Your task to perform on an android device: Open Youtube and go to "Your channel" Image 0: 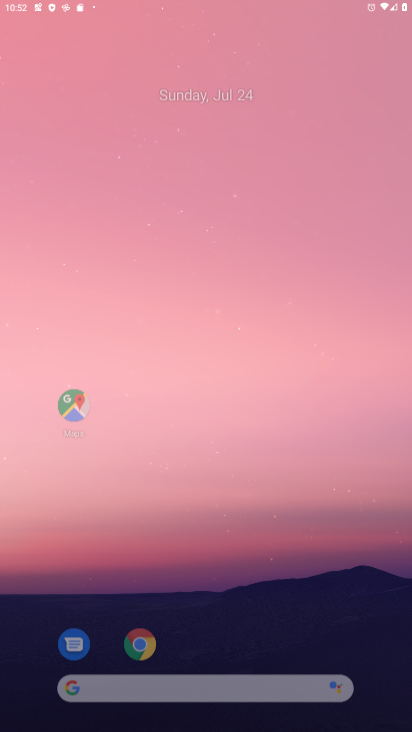
Step 0: click (333, 86)
Your task to perform on an android device: Open Youtube and go to "Your channel" Image 1: 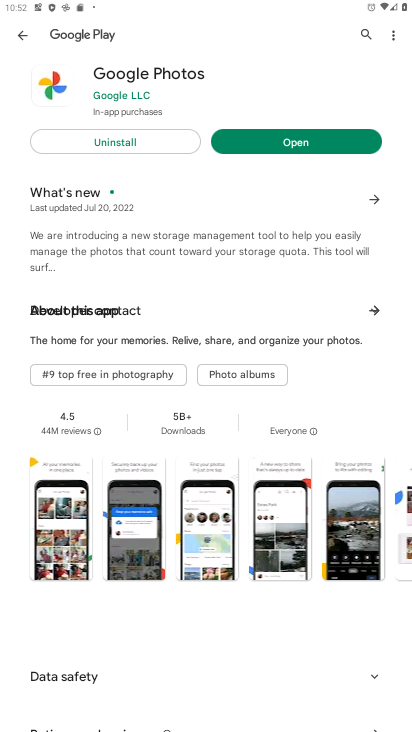
Step 1: press home button
Your task to perform on an android device: Open Youtube and go to "Your channel" Image 2: 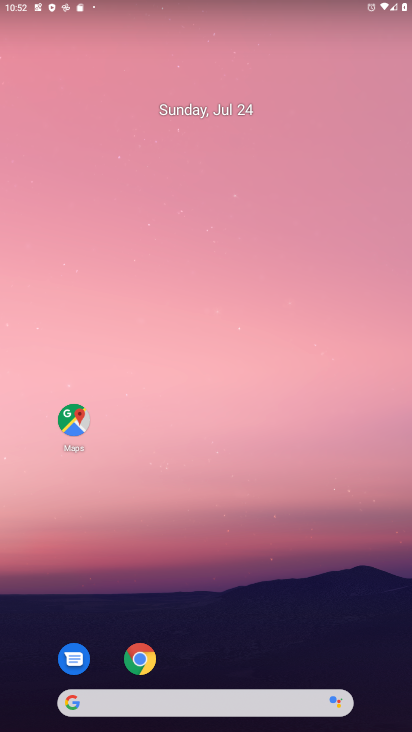
Step 2: drag from (388, 658) to (352, 86)
Your task to perform on an android device: Open Youtube and go to "Your channel" Image 3: 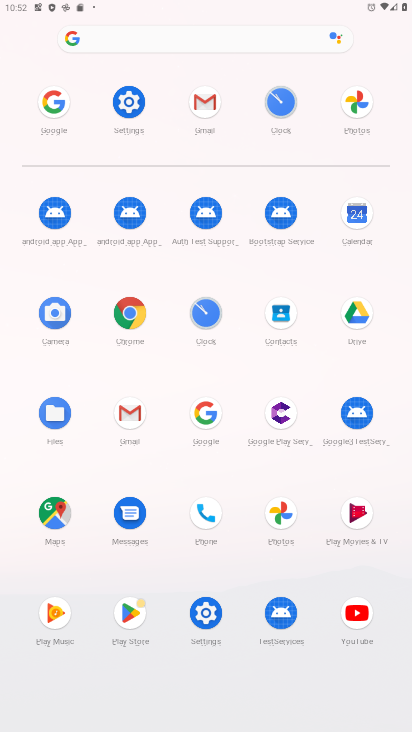
Step 3: click (361, 602)
Your task to perform on an android device: Open Youtube and go to "Your channel" Image 4: 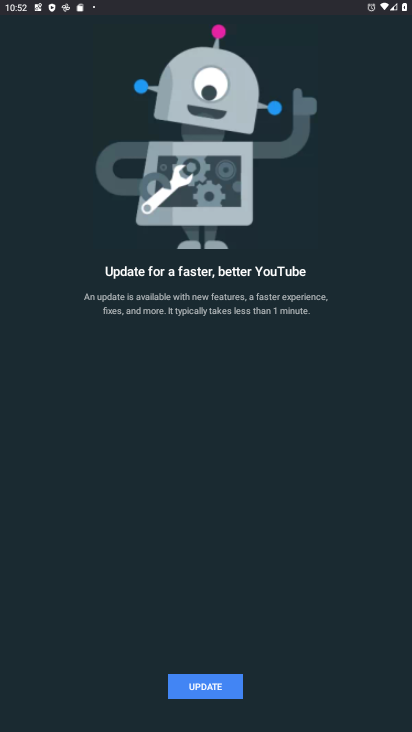
Step 4: click (222, 688)
Your task to perform on an android device: Open Youtube and go to "Your channel" Image 5: 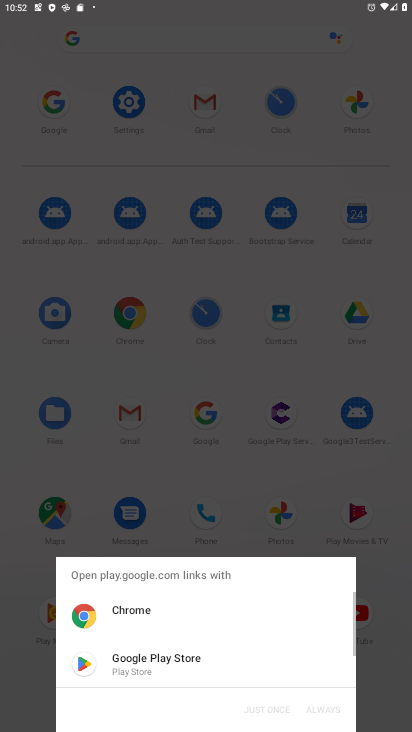
Step 5: click (142, 654)
Your task to perform on an android device: Open Youtube and go to "Your channel" Image 6: 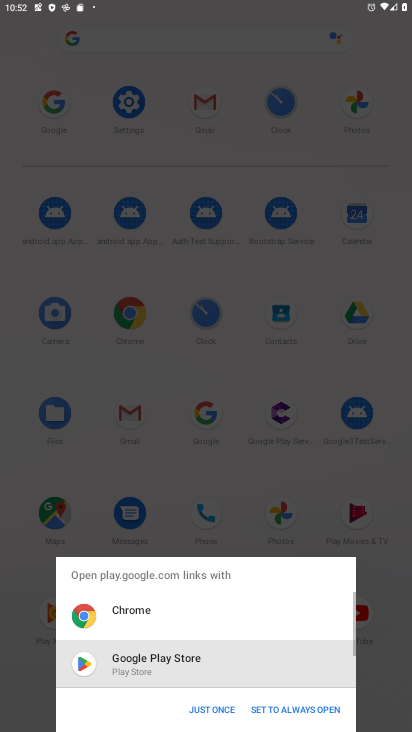
Step 6: click (218, 709)
Your task to perform on an android device: Open Youtube and go to "Your channel" Image 7: 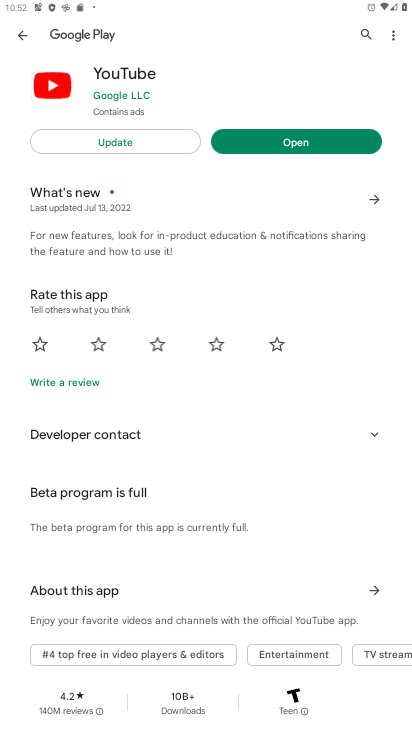
Step 7: click (152, 136)
Your task to perform on an android device: Open Youtube and go to "Your channel" Image 8: 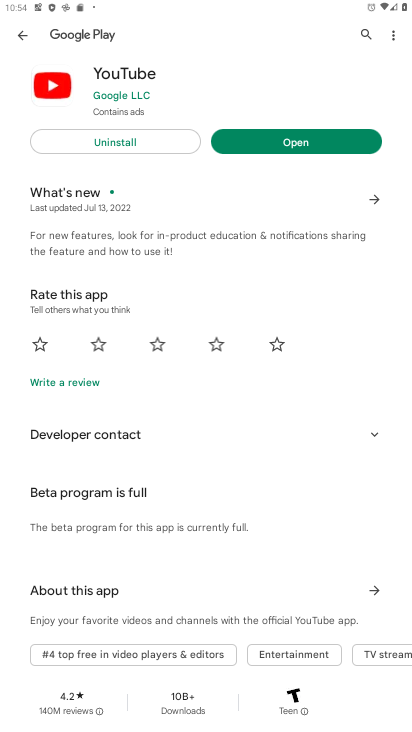
Step 8: click (267, 145)
Your task to perform on an android device: Open Youtube and go to "Your channel" Image 9: 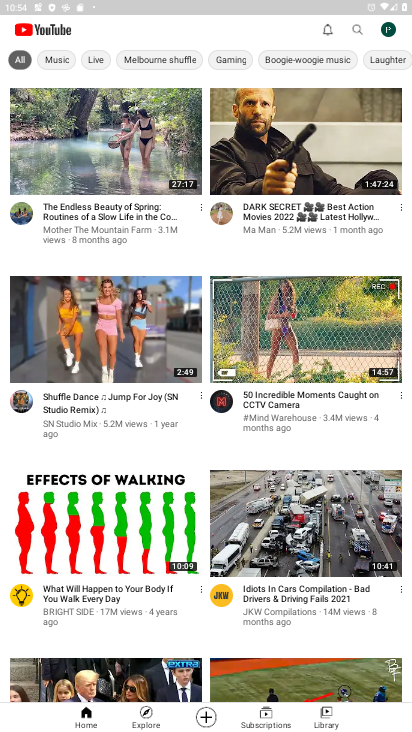
Step 9: click (392, 31)
Your task to perform on an android device: Open Youtube and go to "Your channel" Image 10: 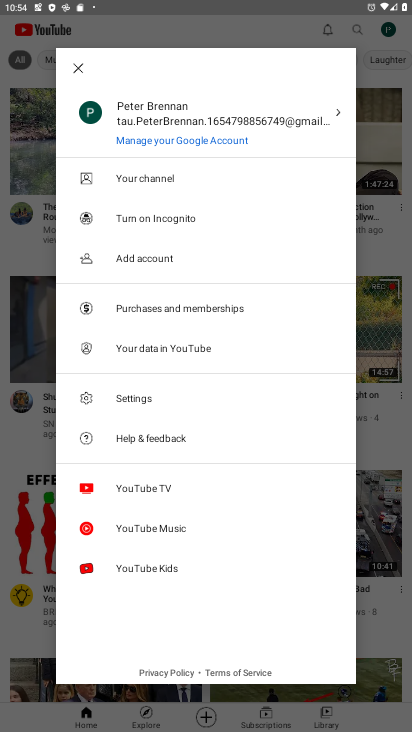
Step 10: click (146, 173)
Your task to perform on an android device: Open Youtube and go to "Your channel" Image 11: 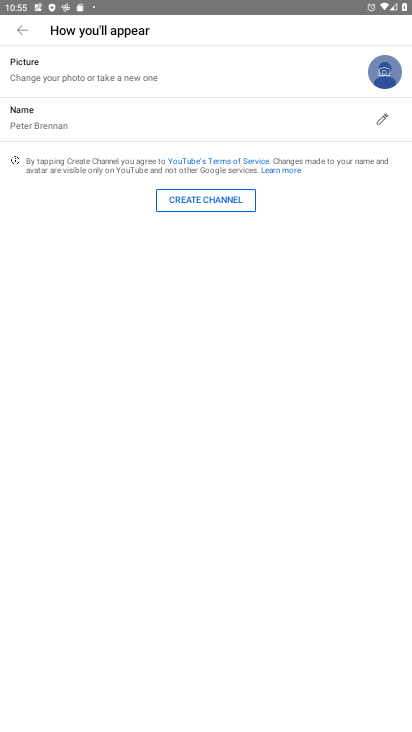
Step 11: task complete